Your task to perform on an android device: check data usage Image 0: 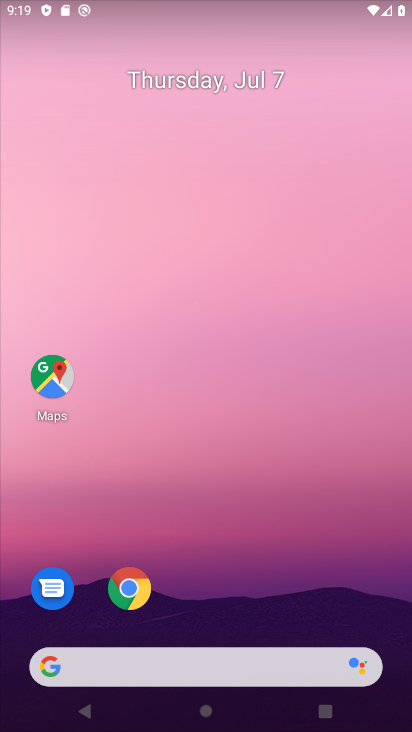
Step 0: drag from (257, 603) to (154, 167)
Your task to perform on an android device: check data usage Image 1: 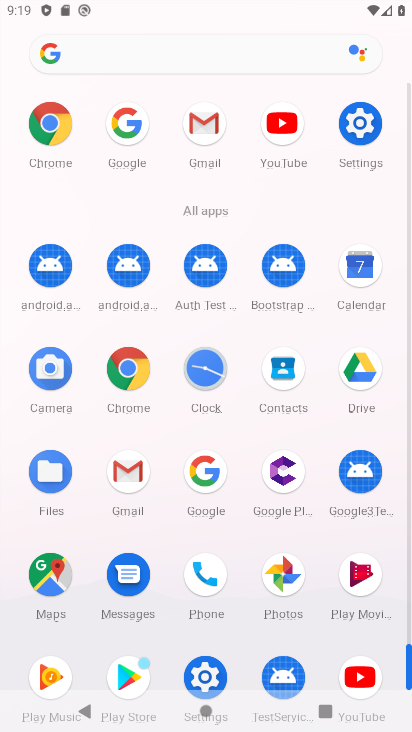
Step 1: click (367, 125)
Your task to perform on an android device: check data usage Image 2: 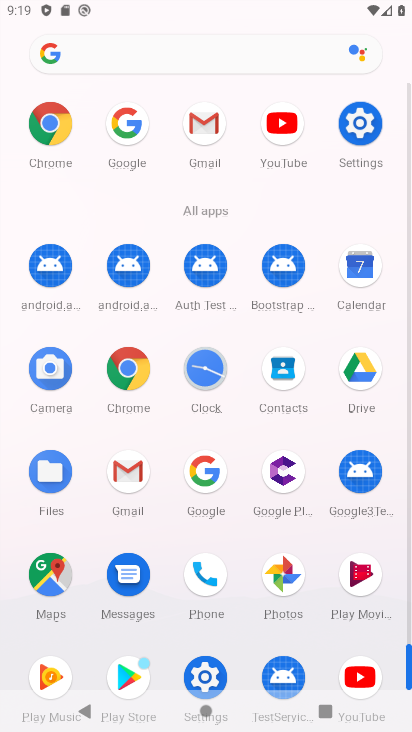
Step 2: click (367, 125)
Your task to perform on an android device: check data usage Image 3: 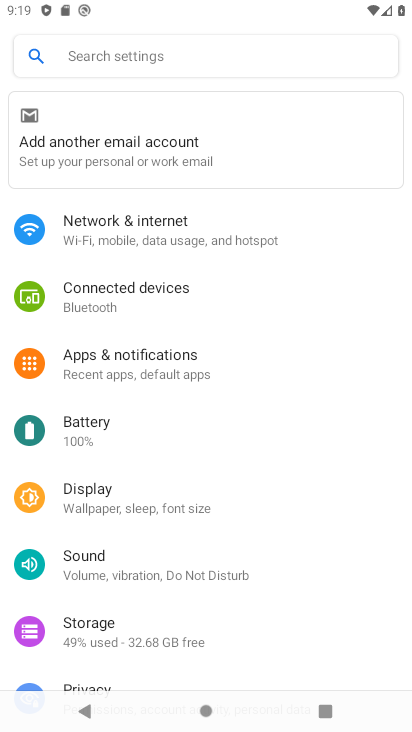
Step 3: click (119, 223)
Your task to perform on an android device: check data usage Image 4: 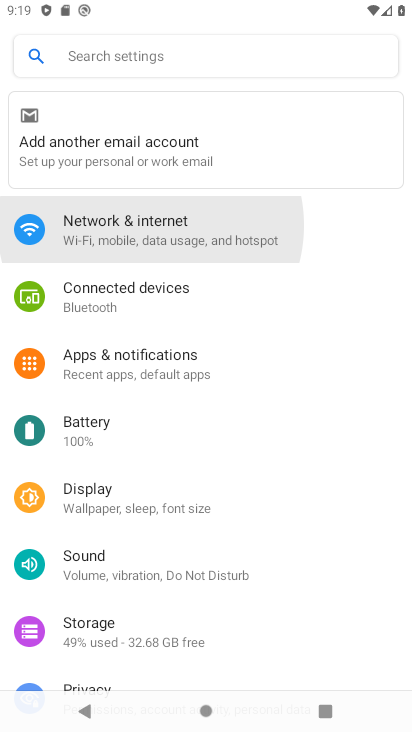
Step 4: click (117, 222)
Your task to perform on an android device: check data usage Image 5: 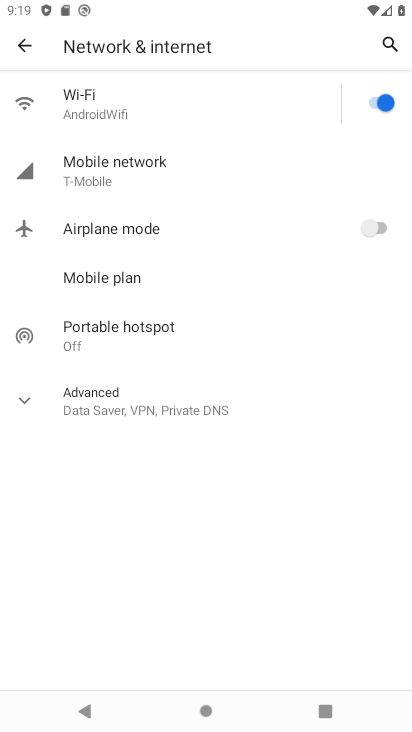
Step 5: click (78, 159)
Your task to perform on an android device: check data usage Image 6: 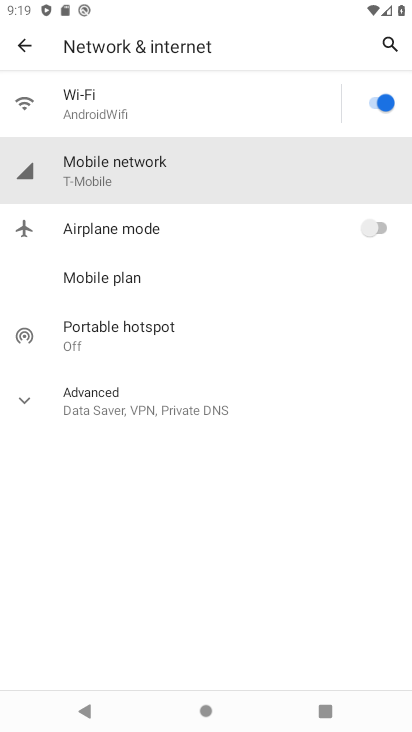
Step 6: click (85, 164)
Your task to perform on an android device: check data usage Image 7: 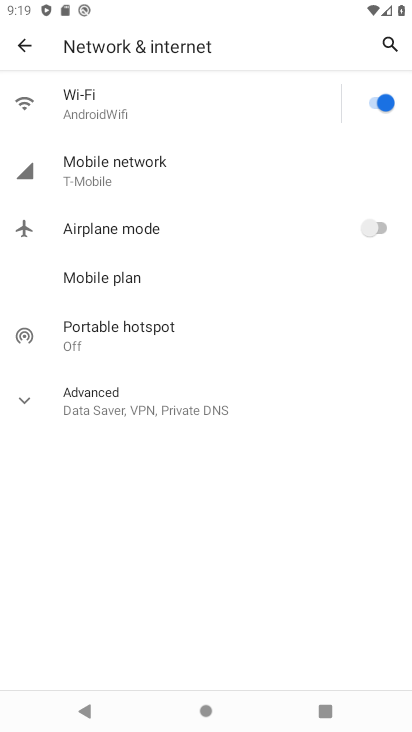
Step 7: click (85, 164)
Your task to perform on an android device: check data usage Image 8: 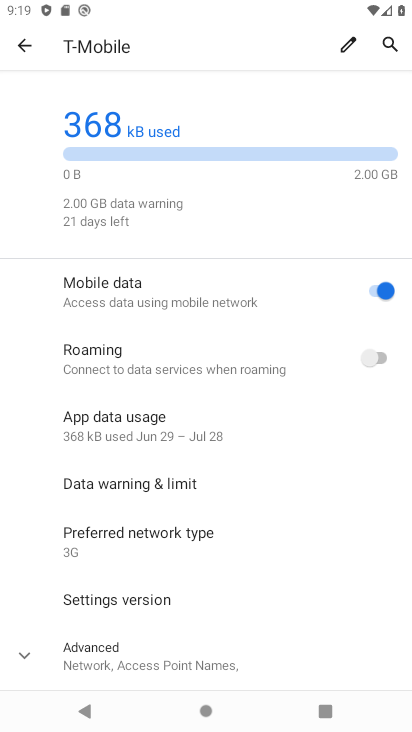
Step 8: task complete